Your task to perform on an android device: Open maps Image 0: 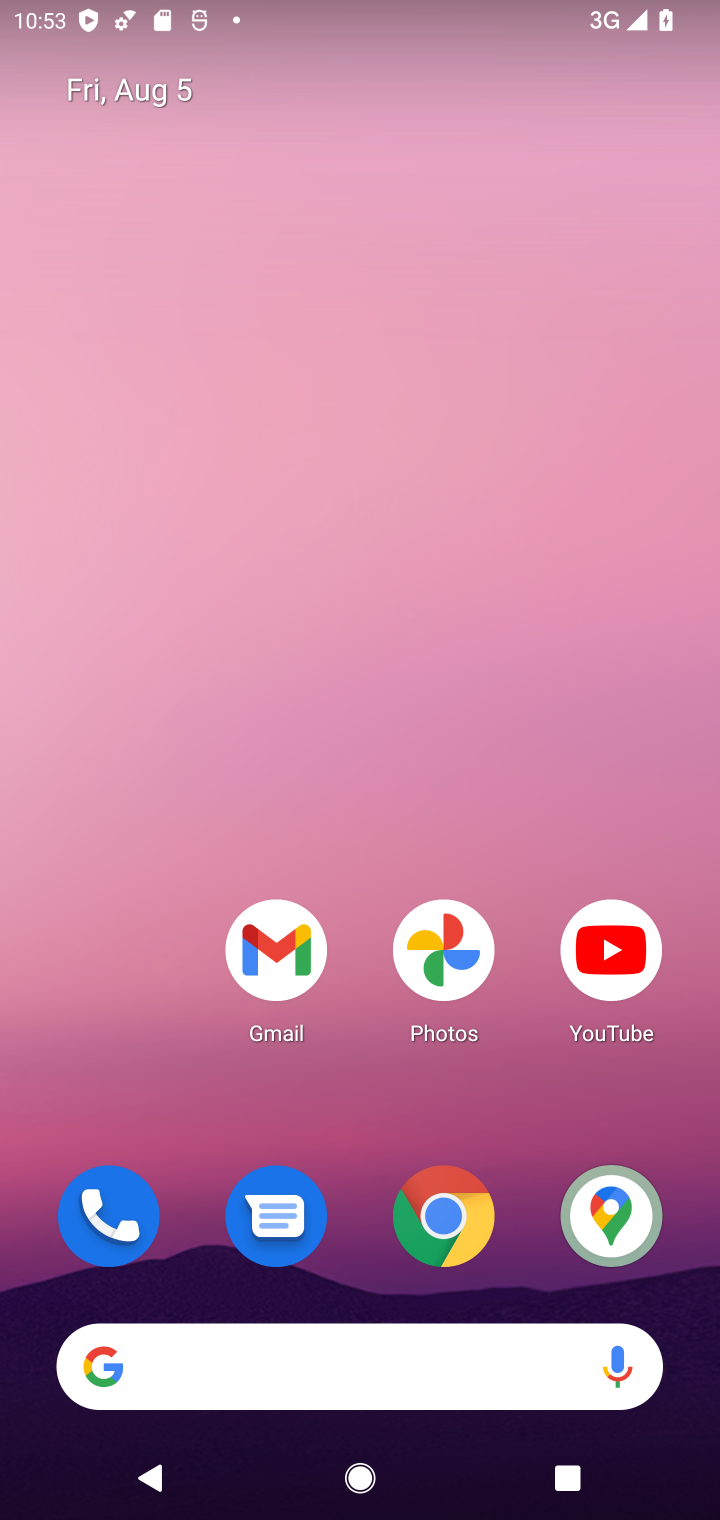
Step 0: drag from (340, 1342) to (451, 66)
Your task to perform on an android device: Open maps Image 1: 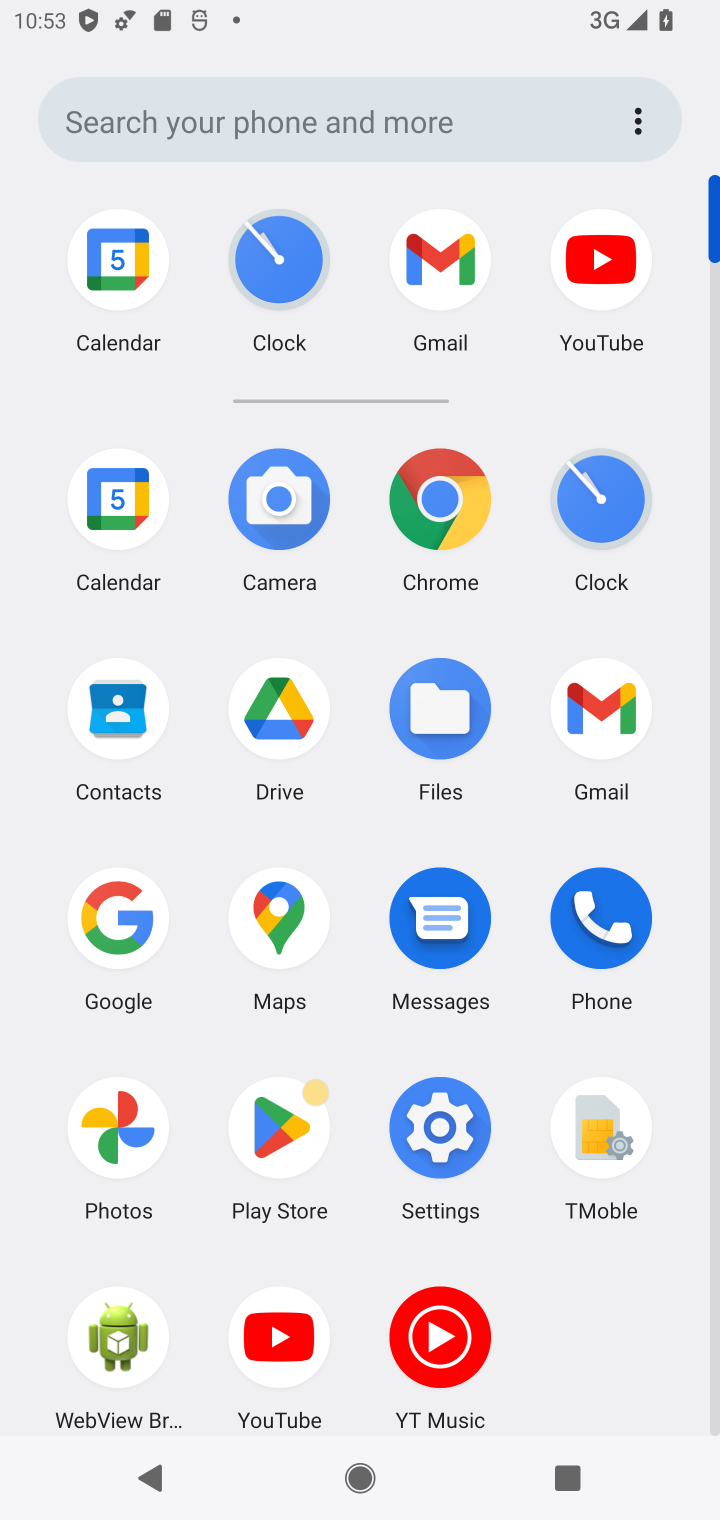
Step 1: click (285, 927)
Your task to perform on an android device: Open maps Image 2: 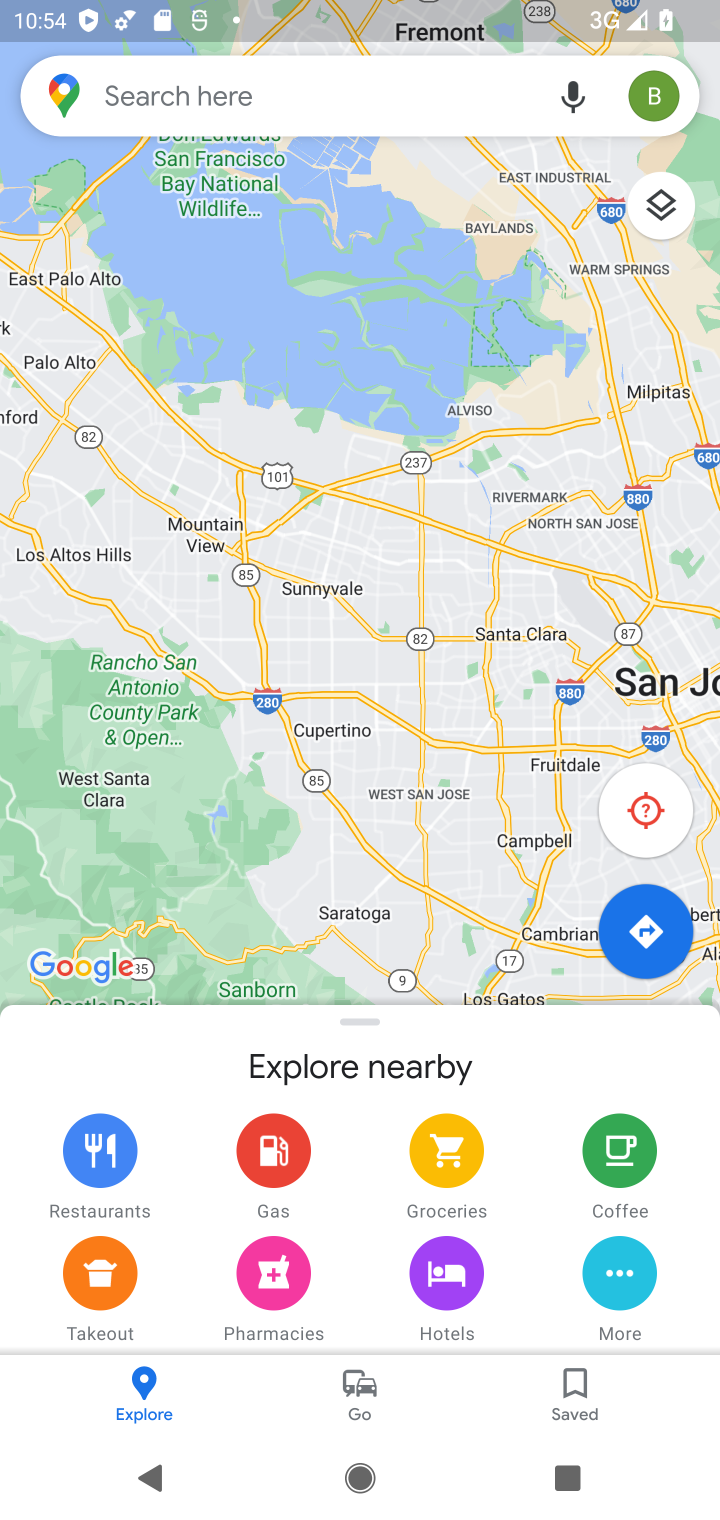
Step 2: task complete